Your task to perform on an android device: toggle airplane mode Image 0: 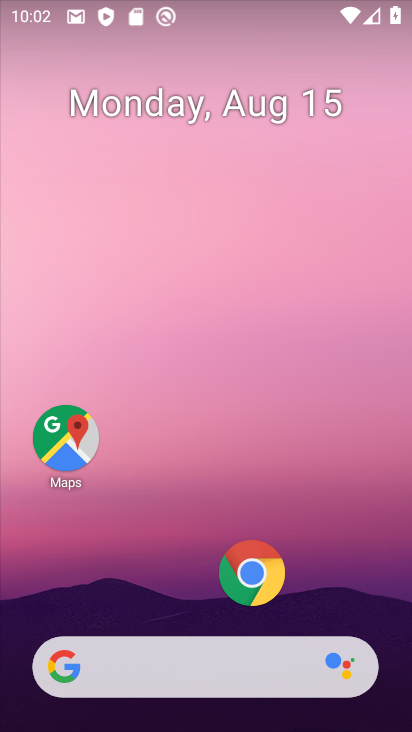
Step 0: drag from (162, 601) to (140, 160)
Your task to perform on an android device: toggle airplane mode Image 1: 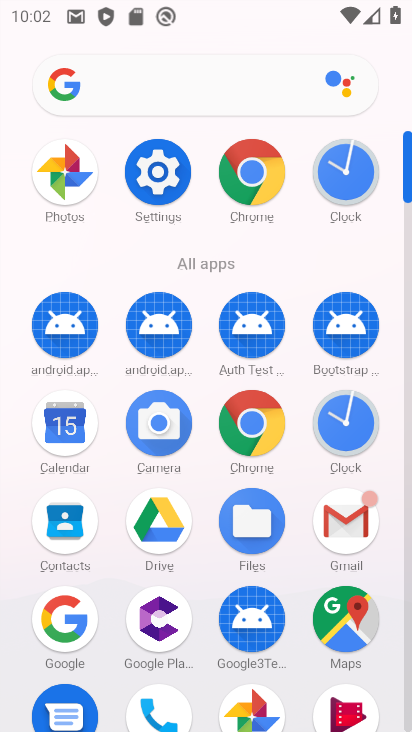
Step 1: click (162, 173)
Your task to perform on an android device: toggle airplane mode Image 2: 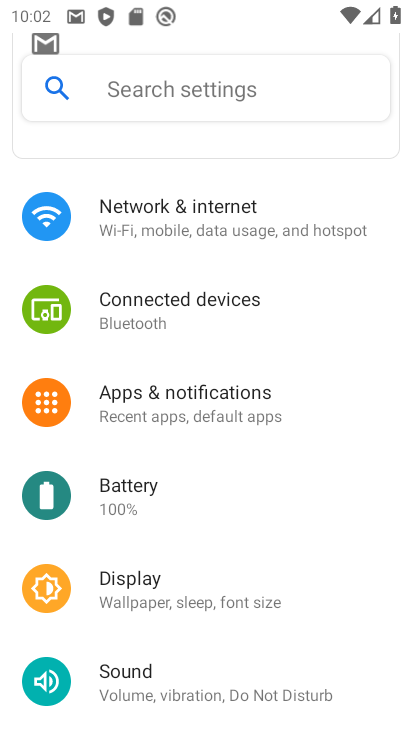
Step 2: click (166, 198)
Your task to perform on an android device: toggle airplane mode Image 3: 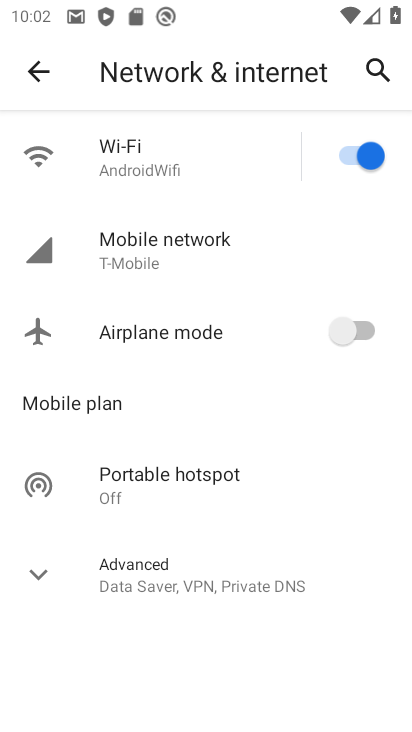
Step 3: click (341, 329)
Your task to perform on an android device: toggle airplane mode Image 4: 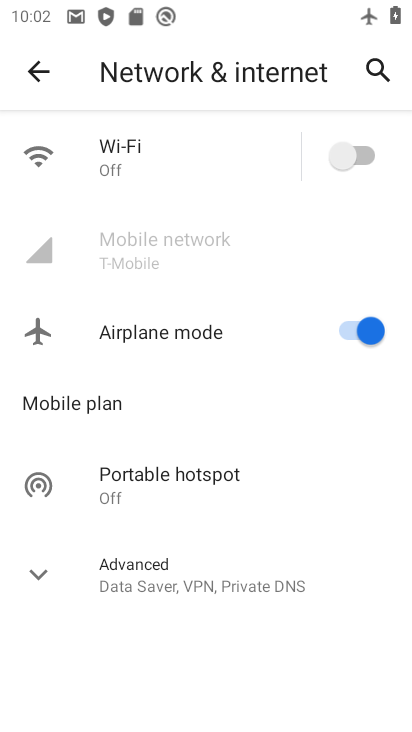
Step 4: task complete